Your task to perform on an android device: Open location settings Image 0: 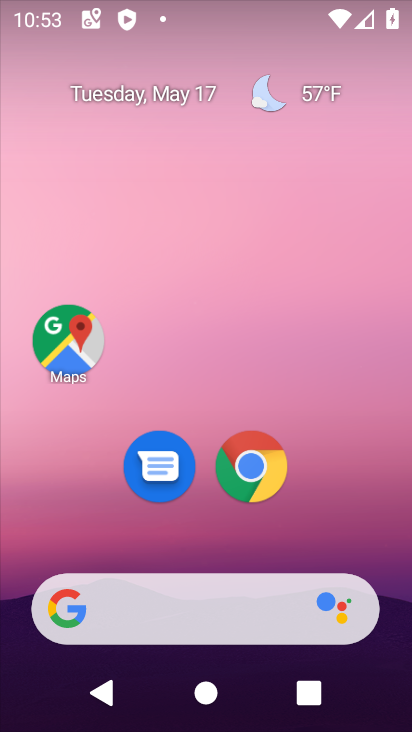
Step 0: drag from (193, 543) to (276, 9)
Your task to perform on an android device: Open location settings Image 1: 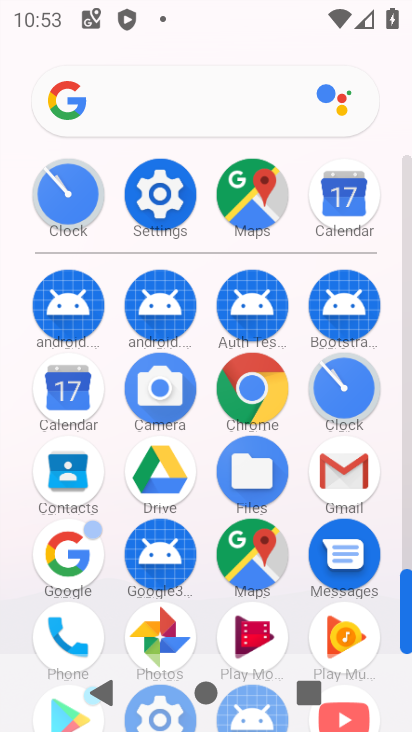
Step 1: click (159, 192)
Your task to perform on an android device: Open location settings Image 2: 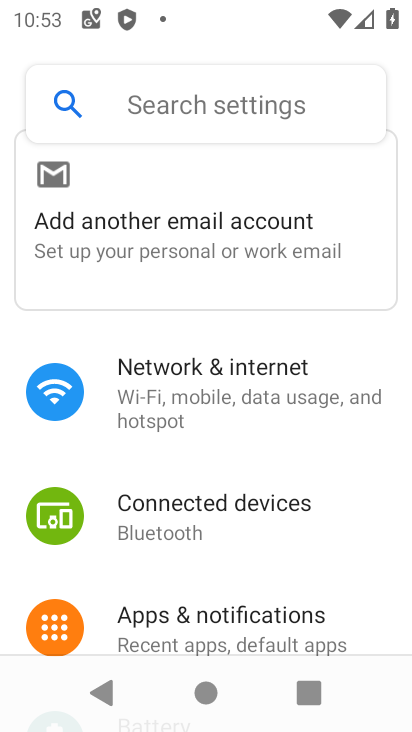
Step 2: drag from (174, 562) to (142, 51)
Your task to perform on an android device: Open location settings Image 3: 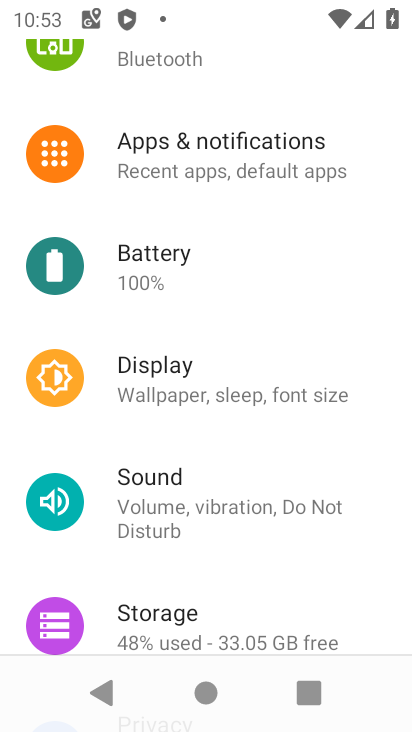
Step 3: drag from (158, 528) to (169, 130)
Your task to perform on an android device: Open location settings Image 4: 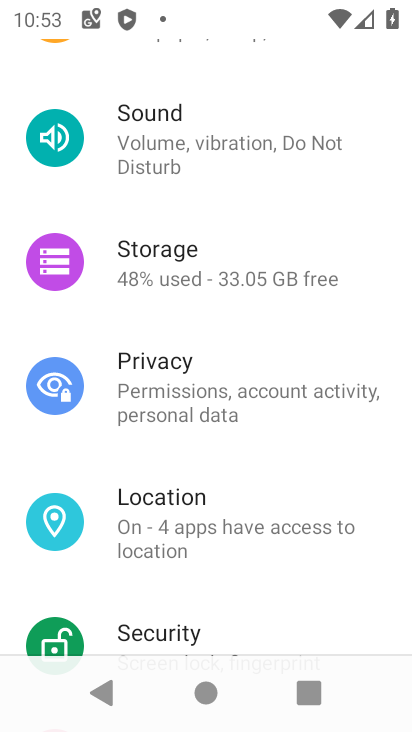
Step 4: click (174, 489)
Your task to perform on an android device: Open location settings Image 5: 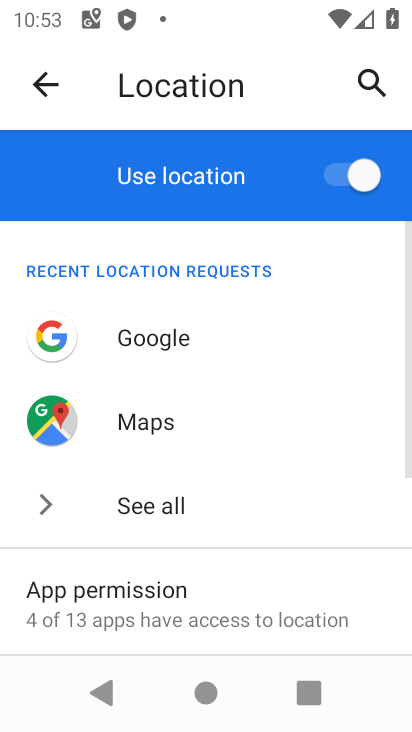
Step 5: task complete